Your task to perform on an android device: change the clock display to analog Image 0: 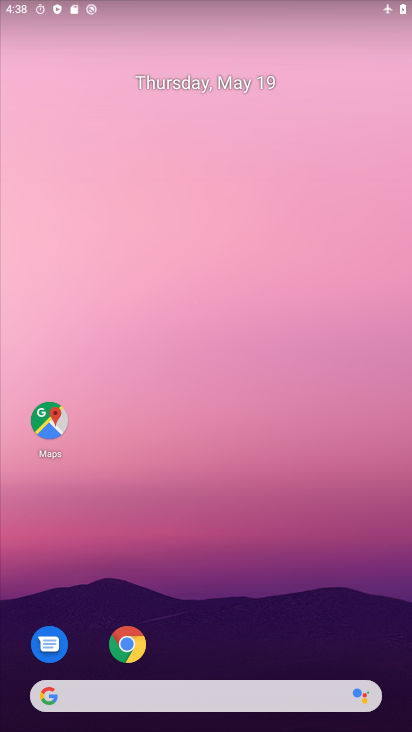
Step 0: drag from (189, 645) to (244, 165)
Your task to perform on an android device: change the clock display to analog Image 1: 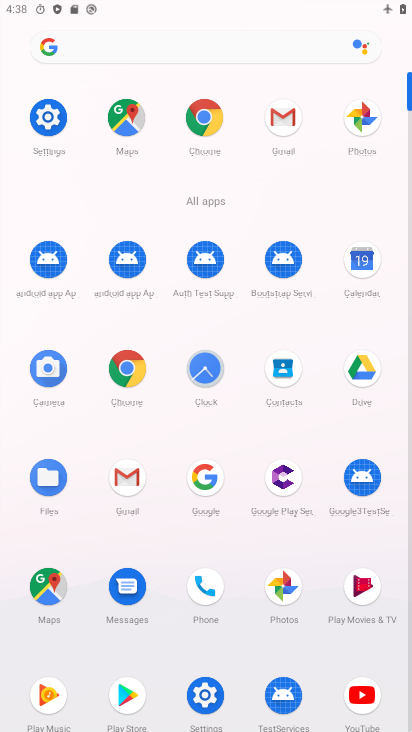
Step 1: click (201, 374)
Your task to perform on an android device: change the clock display to analog Image 2: 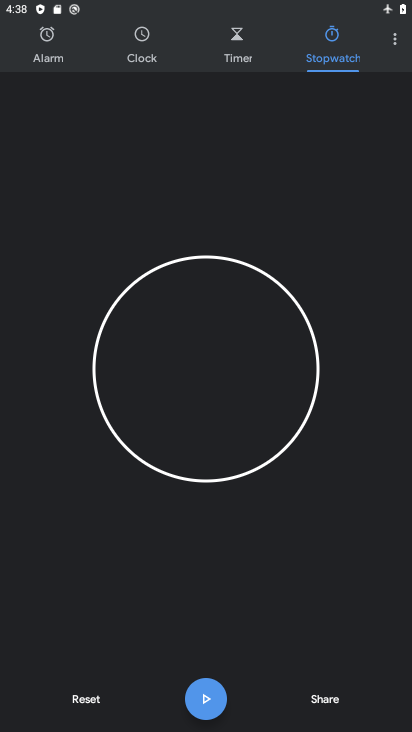
Step 2: click (393, 43)
Your task to perform on an android device: change the clock display to analog Image 3: 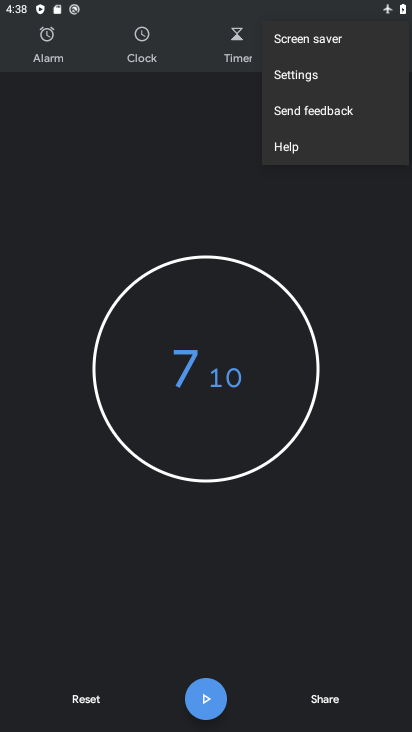
Step 3: click (298, 76)
Your task to perform on an android device: change the clock display to analog Image 4: 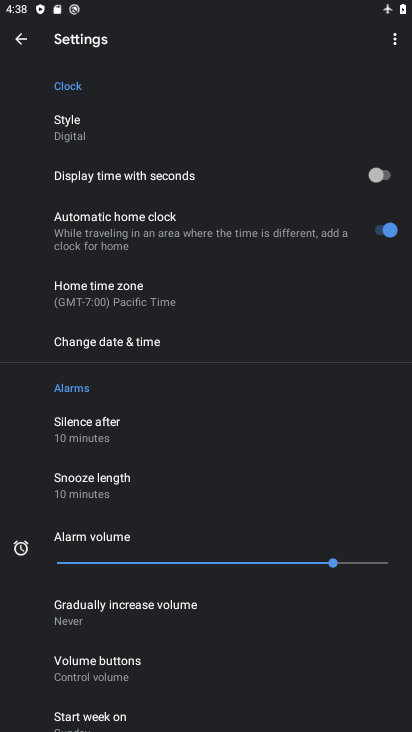
Step 4: drag from (215, 695) to (215, 366)
Your task to perform on an android device: change the clock display to analog Image 5: 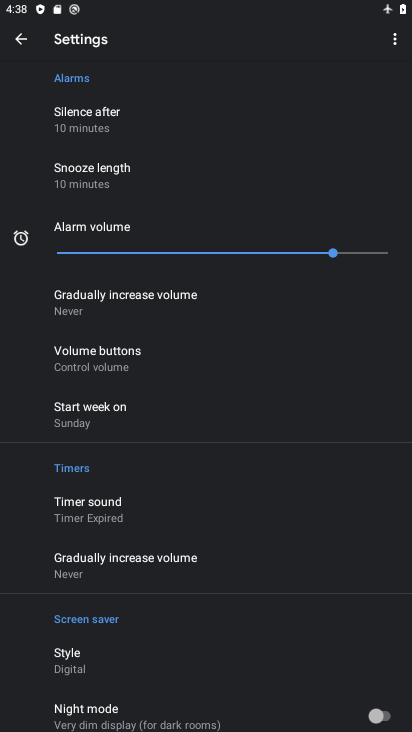
Step 5: drag from (182, 685) to (163, 406)
Your task to perform on an android device: change the clock display to analog Image 6: 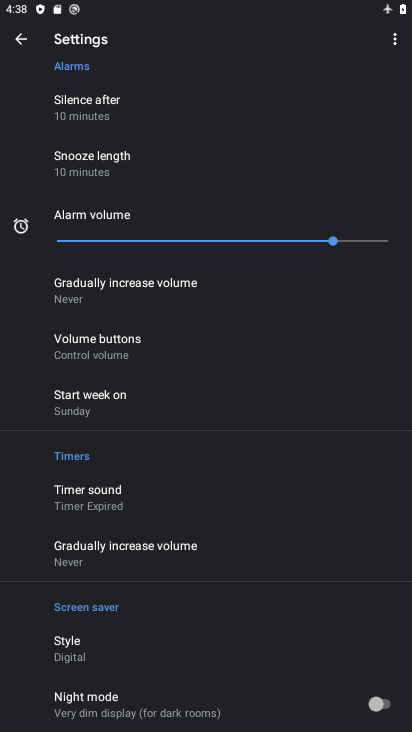
Step 6: drag from (205, 93) to (205, 537)
Your task to perform on an android device: change the clock display to analog Image 7: 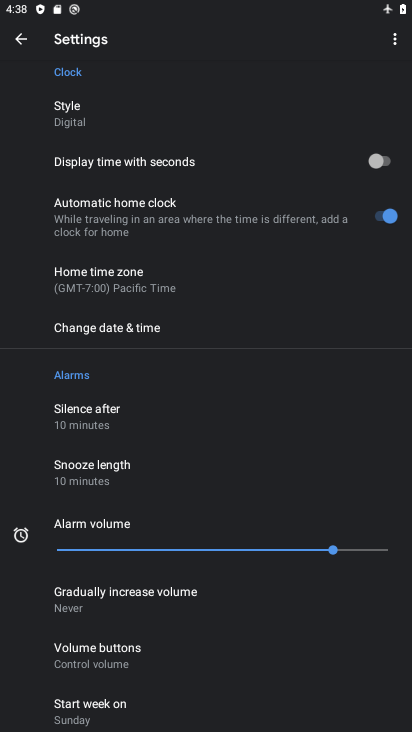
Step 7: click (74, 110)
Your task to perform on an android device: change the clock display to analog Image 8: 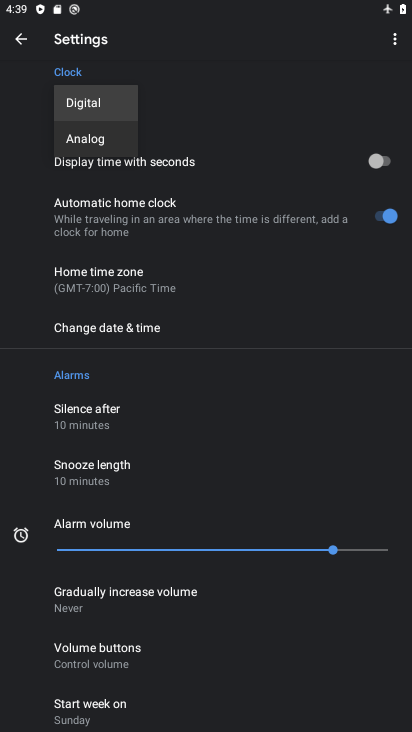
Step 8: click (93, 146)
Your task to perform on an android device: change the clock display to analog Image 9: 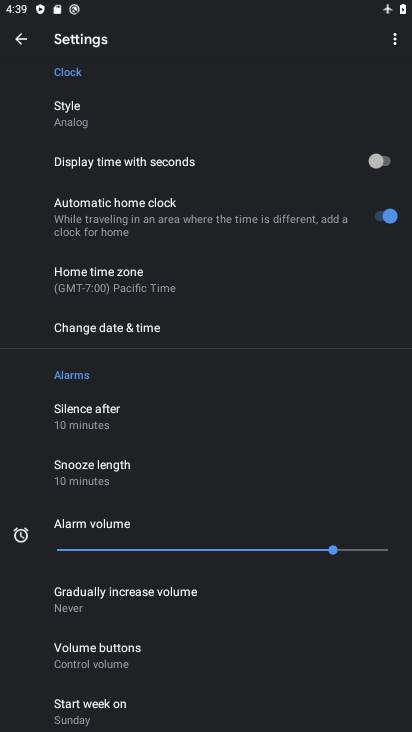
Step 9: task complete